Your task to perform on an android device: Do I have any events today? Image 0: 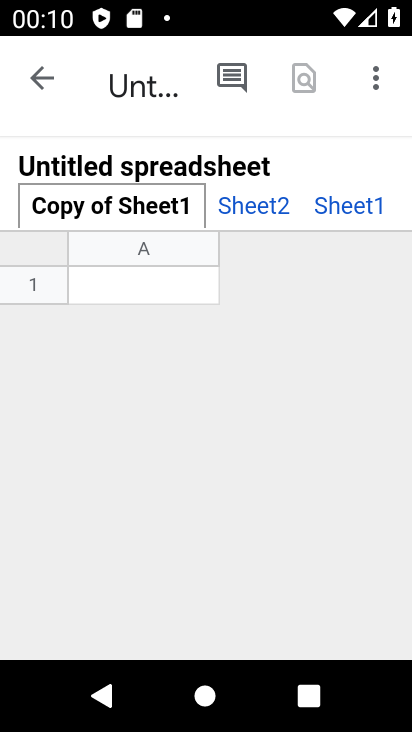
Step 0: press home button
Your task to perform on an android device: Do I have any events today? Image 1: 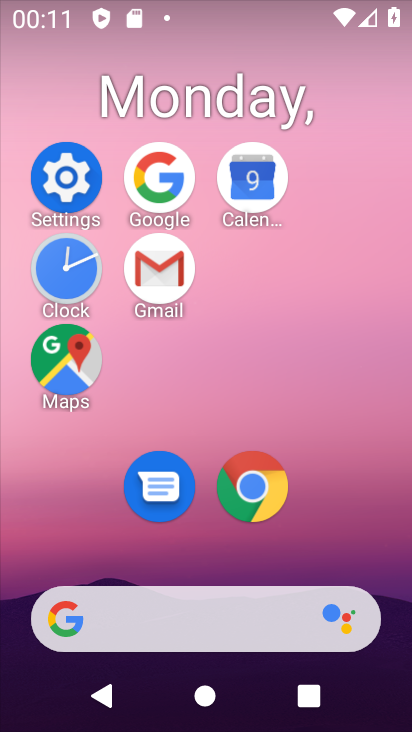
Step 1: click (244, 189)
Your task to perform on an android device: Do I have any events today? Image 2: 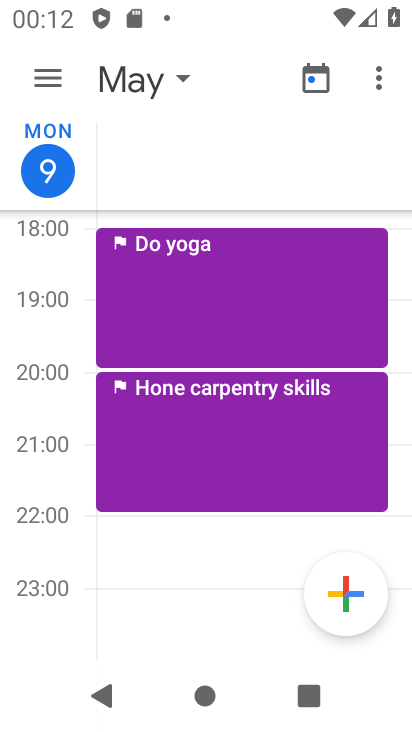
Step 2: task complete